Your task to perform on an android device: Go to Yahoo.com Image 0: 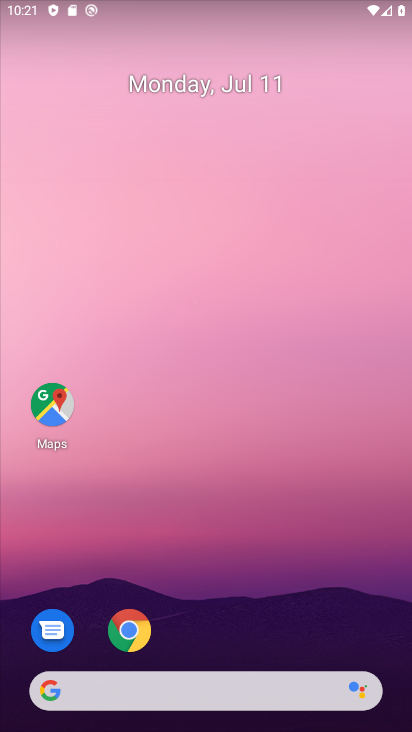
Step 0: drag from (265, 344) to (269, 55)
Your task to perform on an android device: Go to Yahoo.com Image 1: 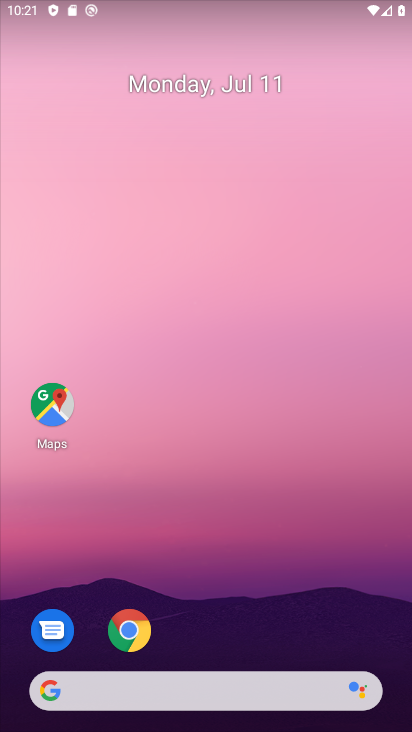
Step 1: drag from (294, 617) to (272, 27)
Your task to perform on an android device: Go to Yahoo.com Image 2: 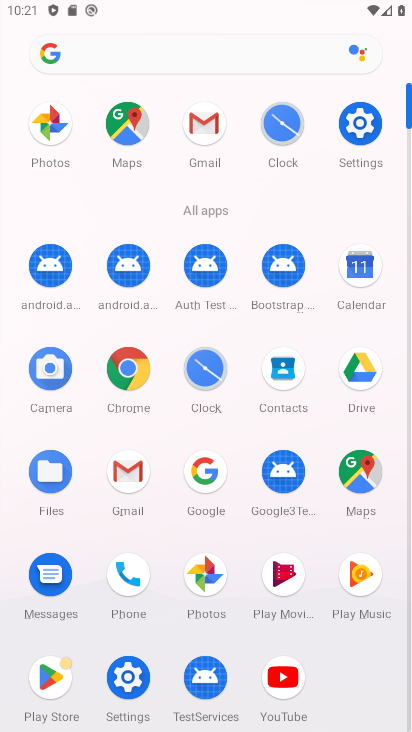
Step 2: click (134, 372)
Your task to perform on an android device: Go to Yahoo.com Image 3: 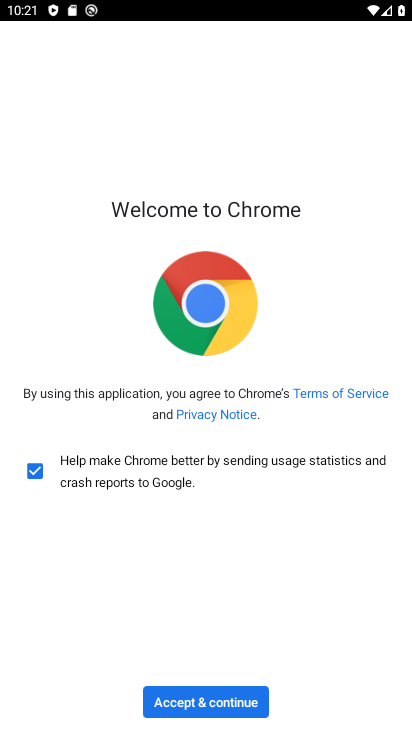
Step 3: click (243, 703)
Your task to perform on an android device: Go to Yahoo.com Image 4: 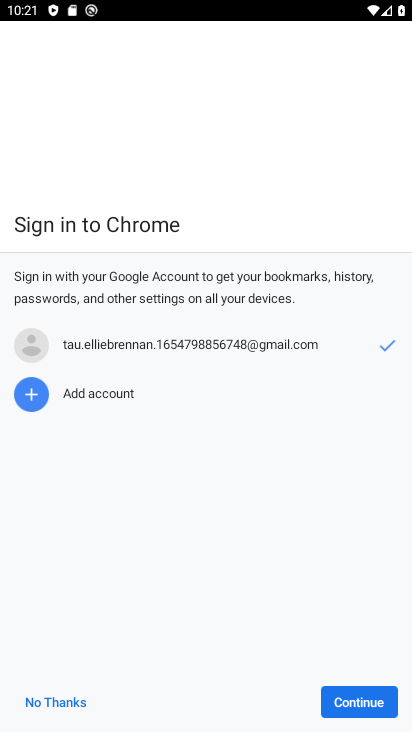
Step 4: click (66, 689)
Your task to perform on an android device: Go to Yahoo.com Image 5: 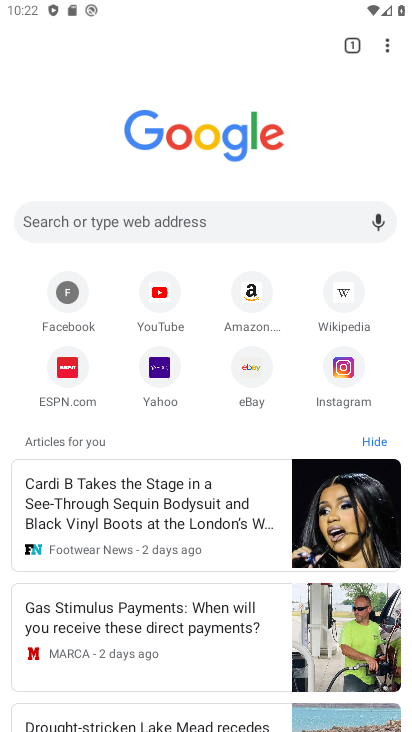
Step 5: drag from (173, 631) to (192, 310)
Your task to perform on an android device: Go to Yahoo.com Image 6: 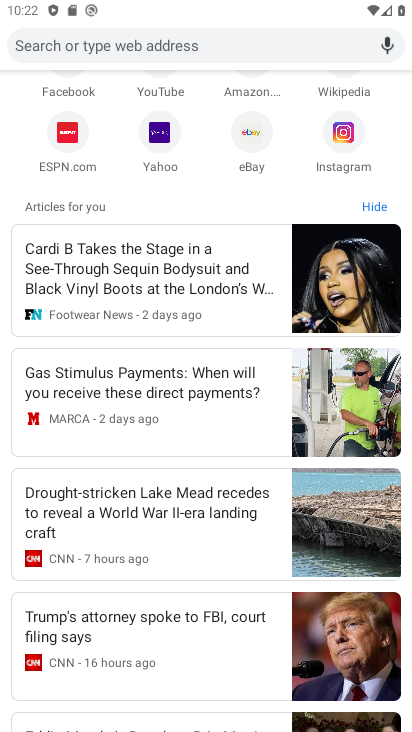
Step 6: drag from (231, 225) to (306, 687)
Your task to perform on an android device: Go to Yahoo.com Image 7: 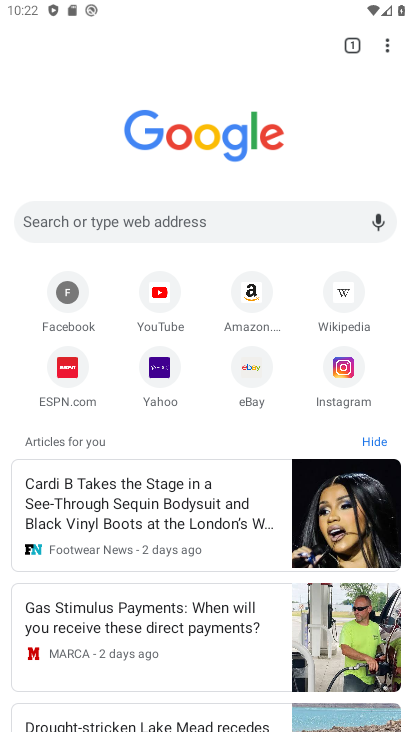
Step 7: click (160, 382)
Your task to perform on an android device: Go to Yahoo.com Image 8: 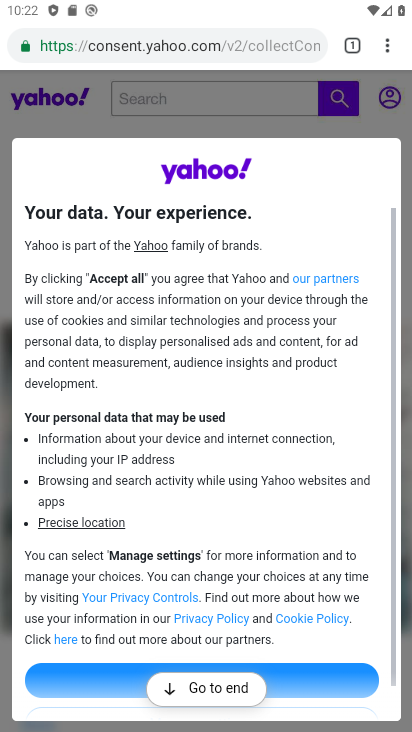
Step 8: task complete